Your task to perform on an android device: add a label to a message in the gmail app Image 0: 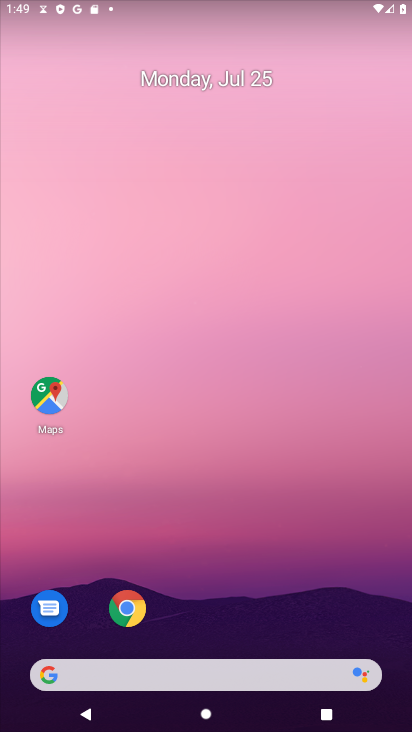
Step 0: drag from (231, 673) to (293, 230)
Your task to perform on an android device: add a label to a message in the gmail app Image 1: 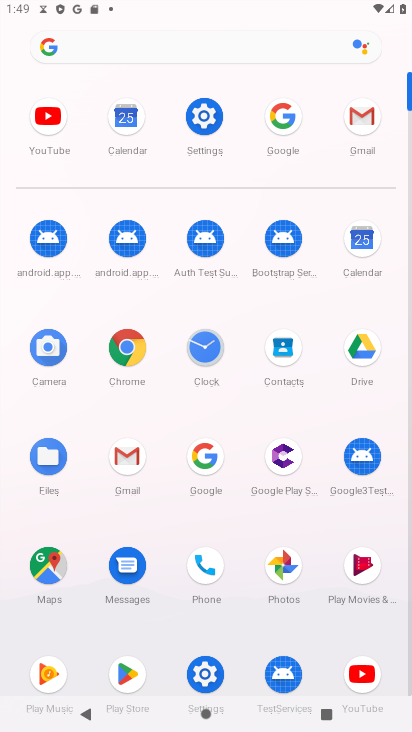
Step 1: click (362, 115)
Your task to perform on an android device: add a label to a message in the gmail app Image 2: 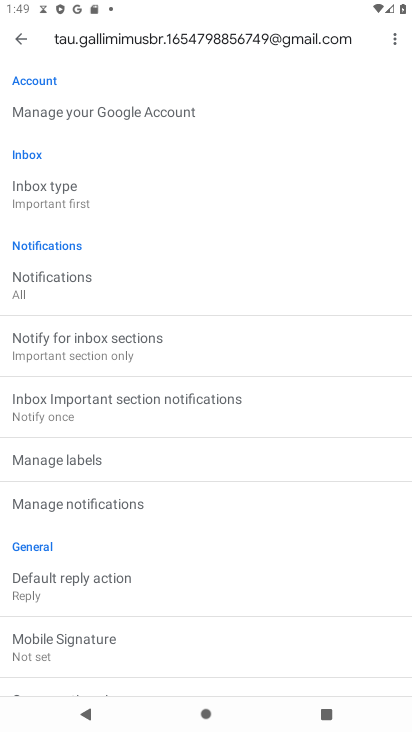
Step 2: press back button
Your task to perform on an android device: add a label to a message in the gmail app Image 3: 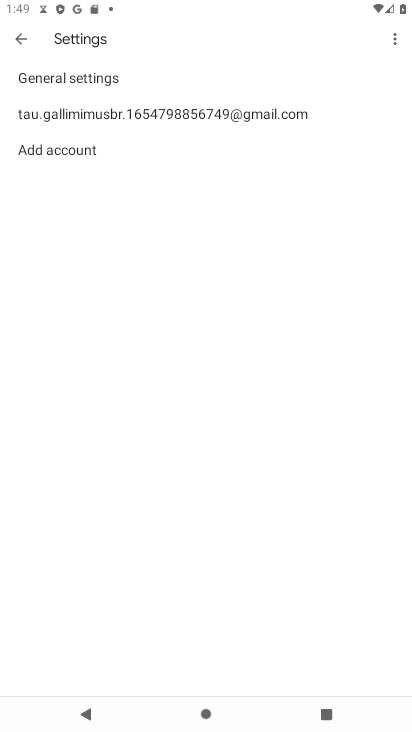
Step 3: press back button
Your task to perform on an android device: add a label to a message in the gmail app Image 4: 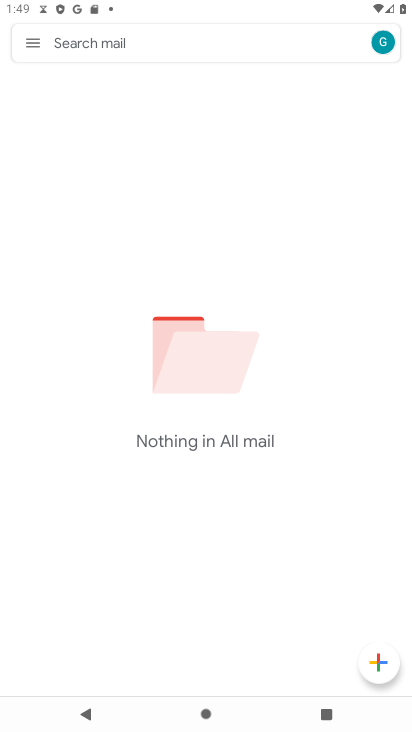
Step 4: click (35, 41)
Your task to perform on an android device: add a label to a message in the gmail app Image 5: 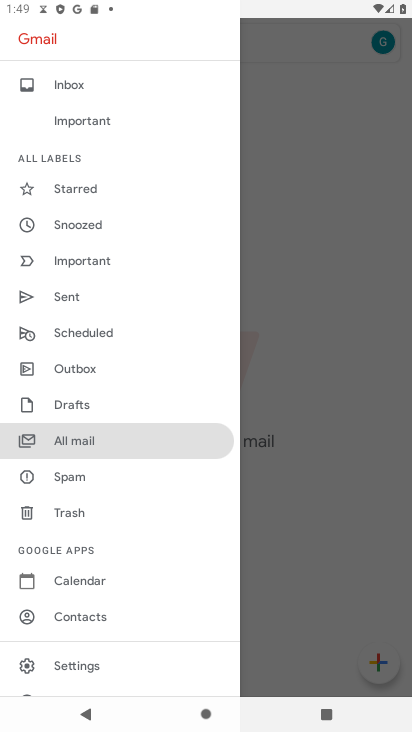
Step 5: click (73, 74)
Your task to perform on an android device: add a label to a message in the gmail app Image 6: 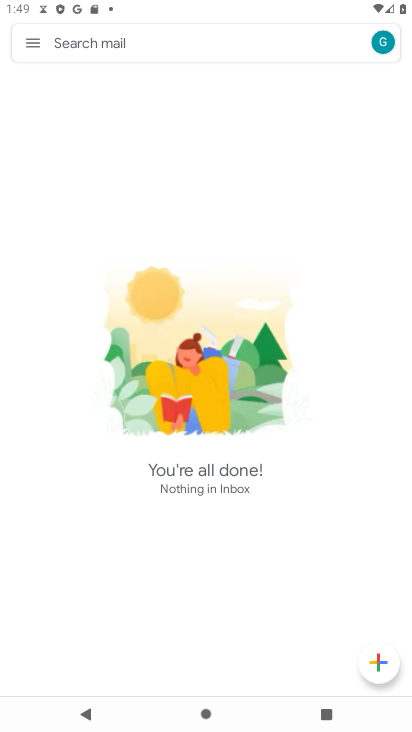
Step 6: click (37, 41)
Your task to perform on an android device: add a label to a message in the gmail app Image 7: 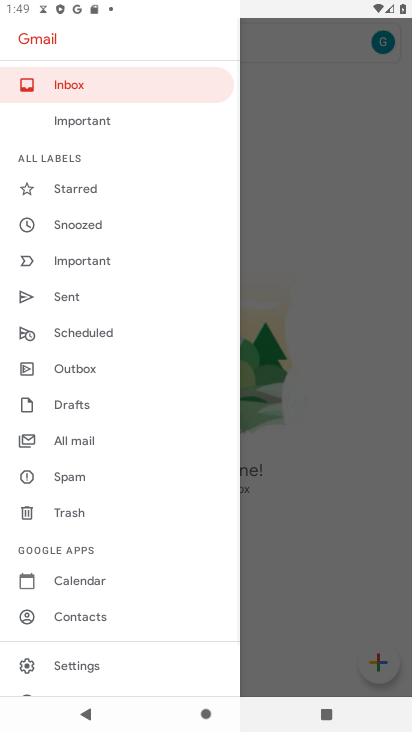
Step 7: click (67, 108)
Your task to perform on an android device: add a label to a message in the gmail app Image 8: 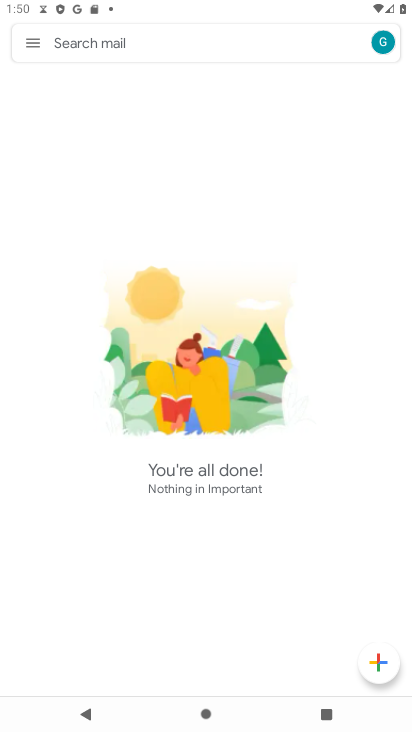
Step 8: click (21, 40)
Your task to perform on an android device: add a label to a message in the gmail app Image 9: 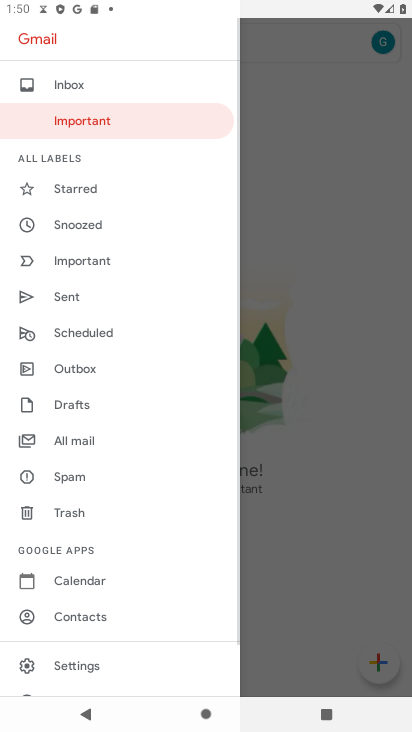
Step 9: click (93, 199)
Your task to perform on an android device: add a label to a message in the gmail app Image 10: 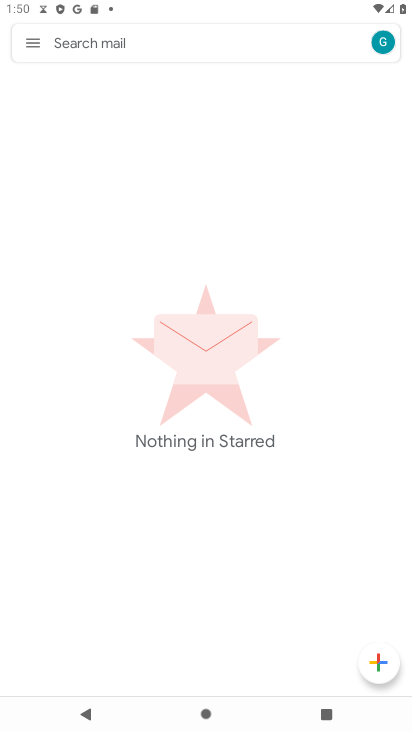
Step 10: click (29, 35)
Your task to perform on an android device: add a label to a message in the gmail app Image 11: 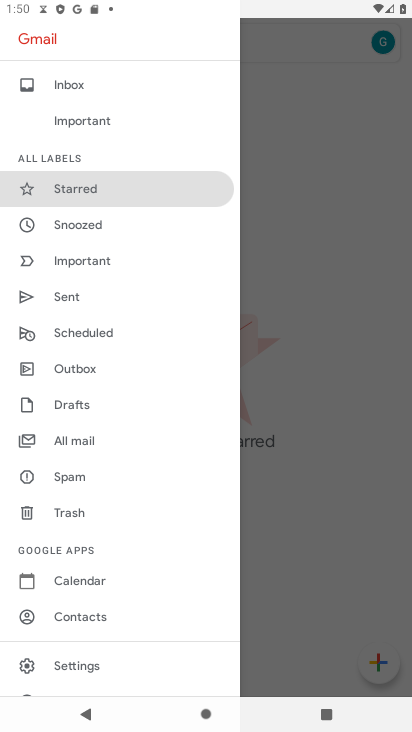
Step 11: click (98, 229)
Your task to perform on an android device: add a label to a message in the gmail app Image 12: 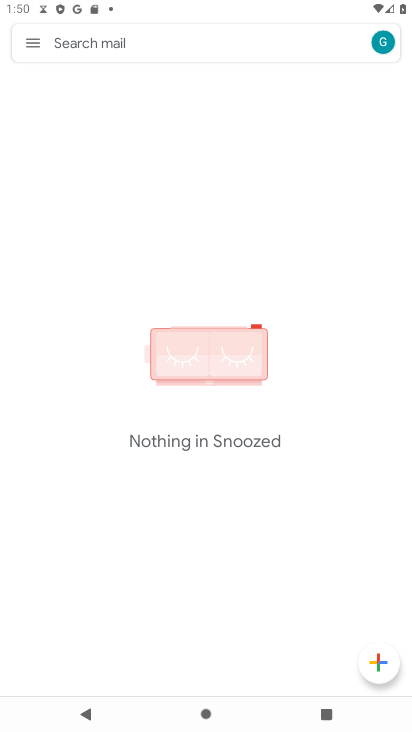
Step 12: click (24, 37)
Your task to perform on an android device: add a label to a message in the gmail app Image 13: 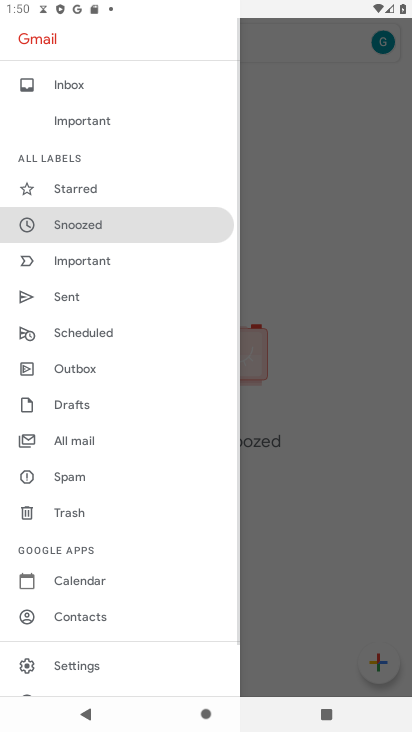
Step 13: click (102, 263)
Your task to perform on an android device: add a label to a message in the gmail app Image 14: 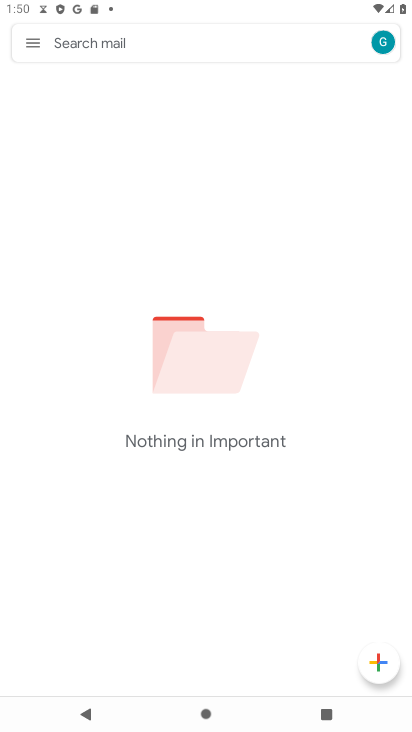
Step 14: click (38, 45)
Your task to perform on an android device: add a label to a message in the gmail app Image 15: 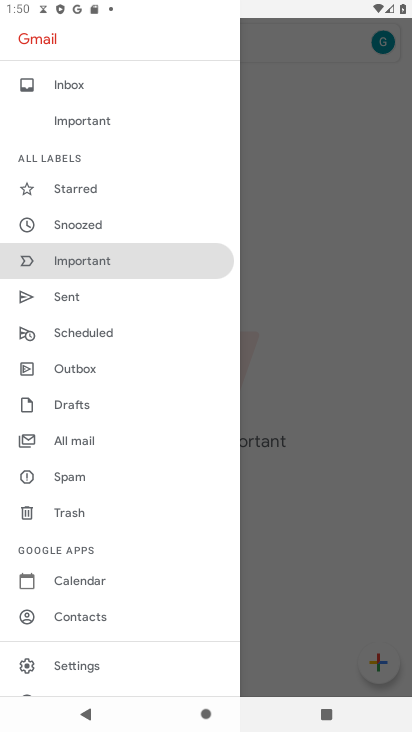
Step 15: click (83, 307)
Your task to perform on an android device: add a label to a message in the gmail app Image 16: 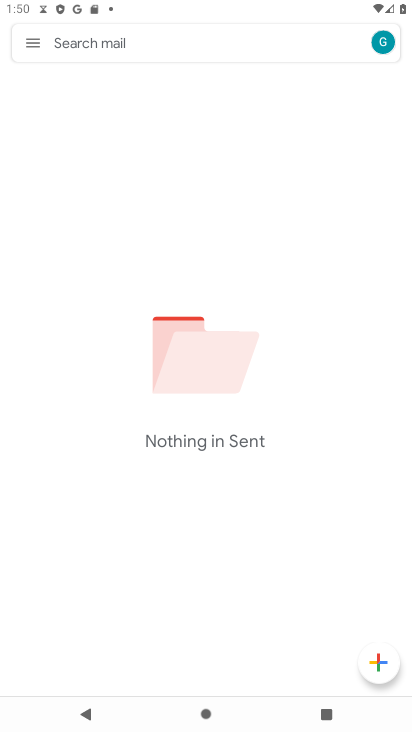
Step 16: click (20, 45)
Your task to perform on an android device: add a label to a message in the gmail app Image 17: 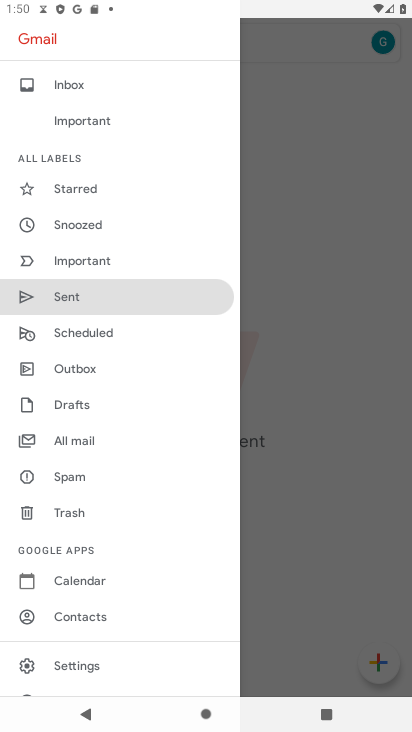
Step 17: click (90, 339)
Your task to perform on an android device: add a label to a message in the gmail app Image 18: 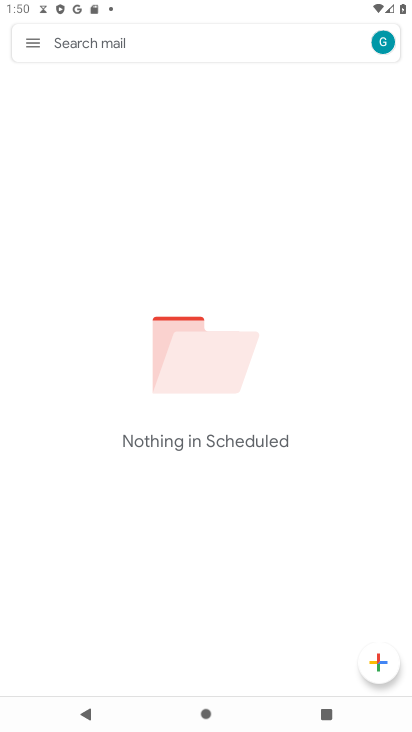
Step 18: click (28, 43)
Your task to perform on an android device: add a label to a message in the gmail app Image 19: 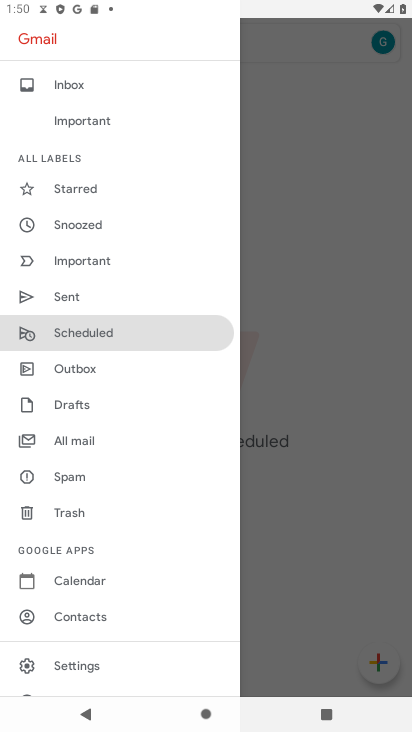
Step 19: click (70, 372)
Your task to perform on an android device: add a label to a message in the gmail app Image 20: 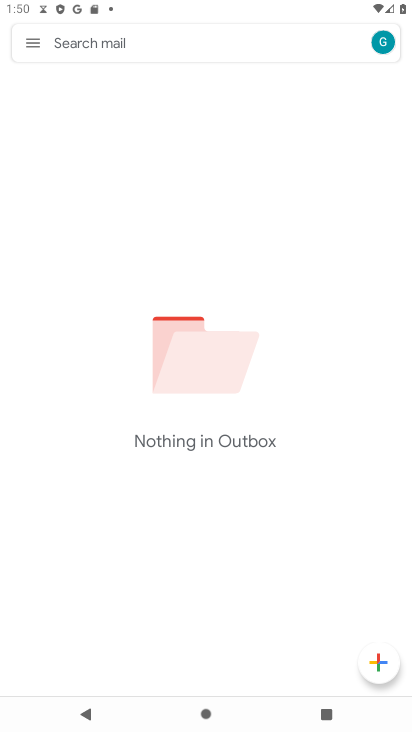
Step 20: click (26, 49)
Your task to perform on an android device: add a label to a message in the gmail app Image 21: 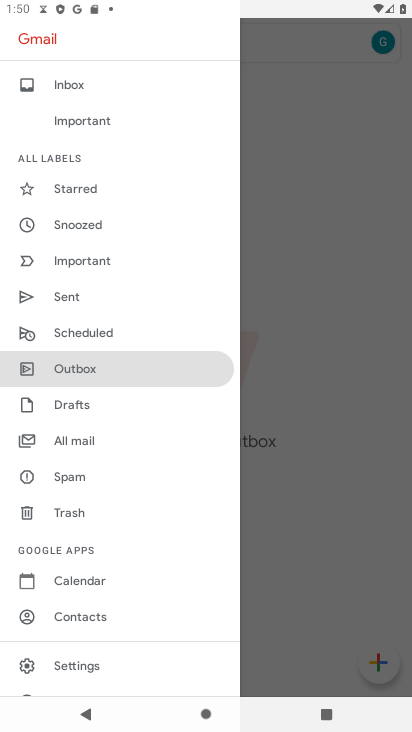
Step 21: click (75, 395)
Your task to perform on an android device: add a label to a message in the gmail app Image 22: 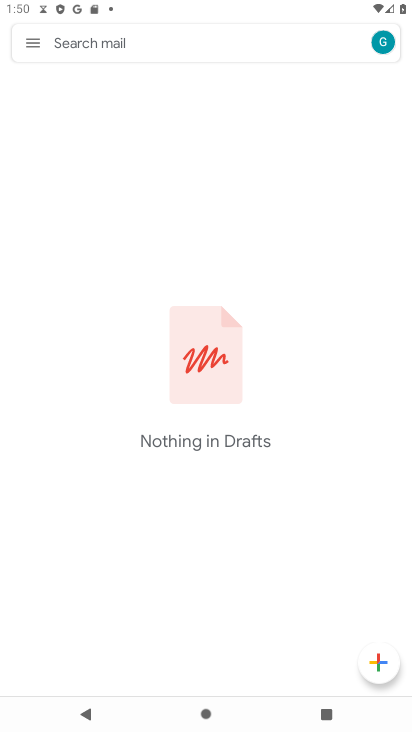
Step 22: click (37, 37)
Your task to perform on an android device: add a label to a message in the gmail app Image 23: 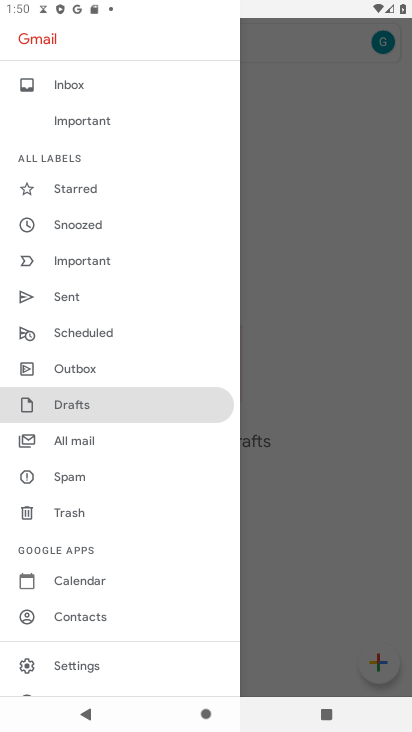
Step 23: click (65, 438)
Your task to perform on an android device: add a label to a message in the gmail app Image 24: 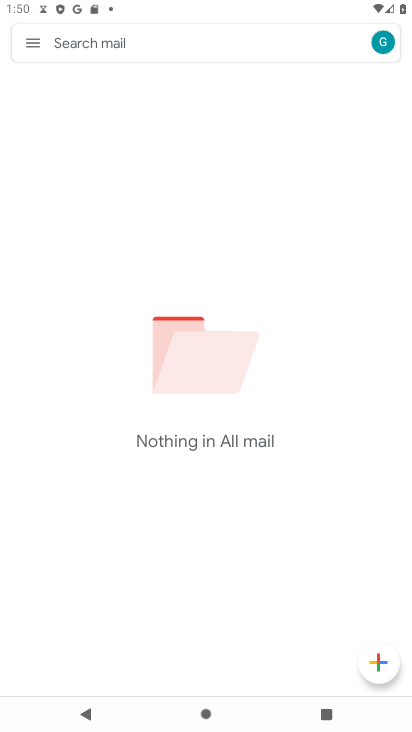
Step 24: task complete